Your task to perform on an android device: Open the calendar and show me this week's events? Image 0: 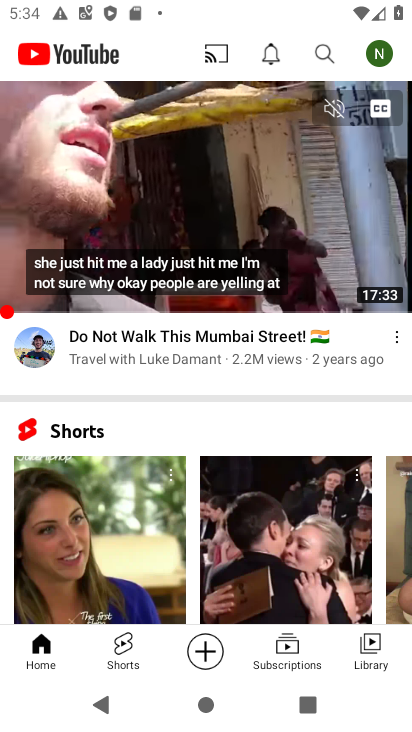
Step 0: press back button
Your task to perform on an android device: Open the calendar and show me this week's events? Image 1: 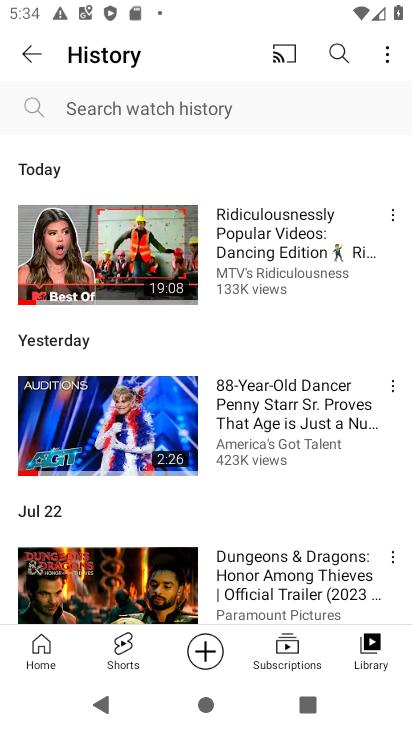
Step 1: press home button
Your task to perform on an android device: Open the calendar and show me this week's events? Image 2: 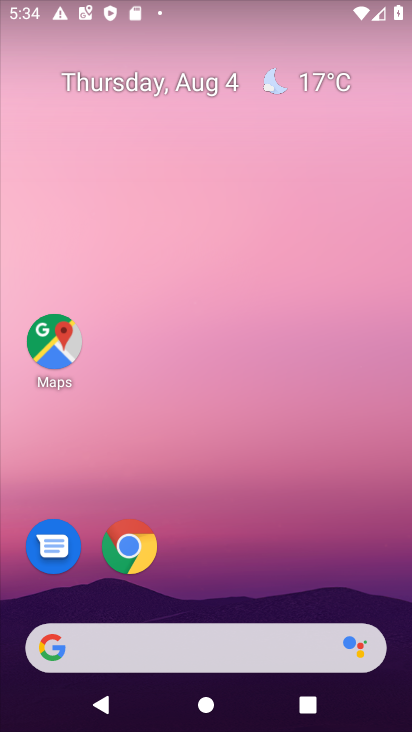
Step 2: drag from (179, 558) to (316, 38)
Your task to perform on an android device: Open the calendar and show me this week's events? Image 3: 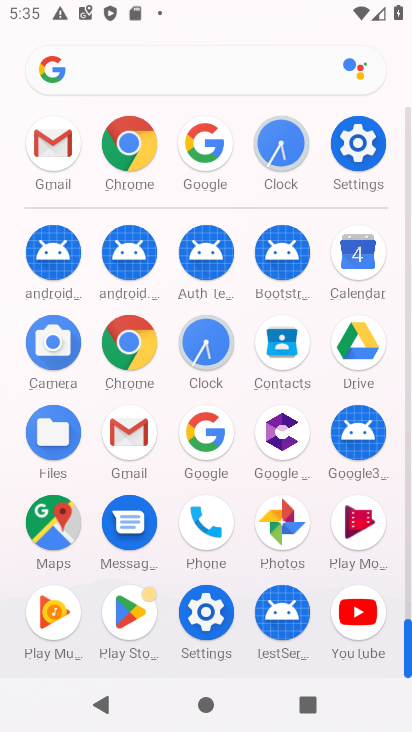
Step 3: click (357, 260)
Your task to perform on an android device: Open the calendar and show me this week's events? Image 4: 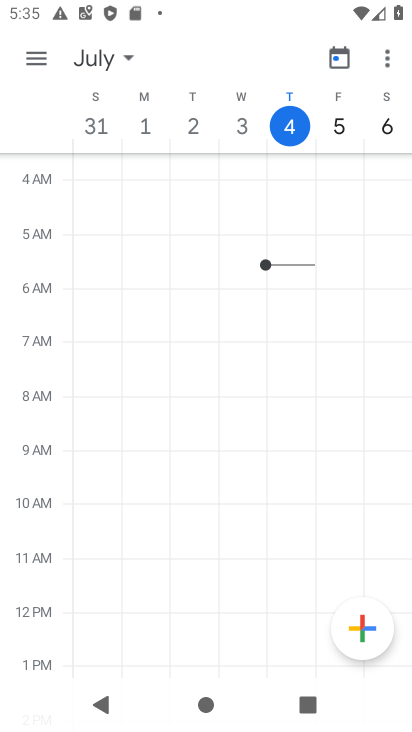
Step 4: task complete